Your task to perform on an android device: create a new album in the google photos Image 0: 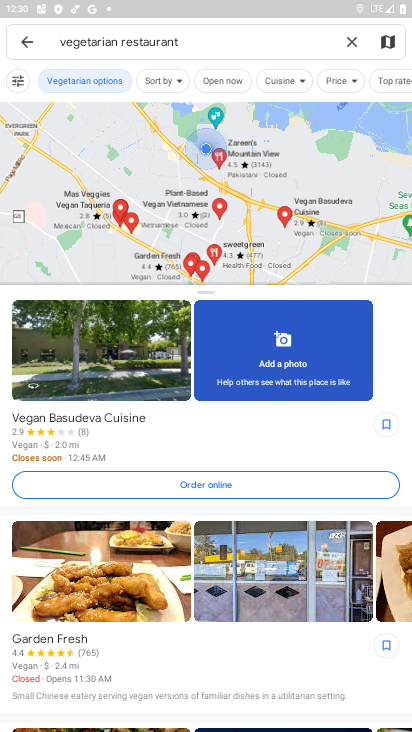
Step 0: press home button
Your task to perform on an android device: create a new album in the google photos Image 1: 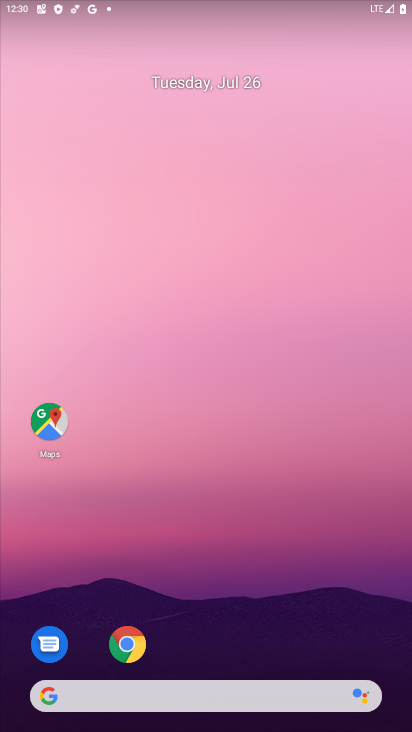
Step 1: drag from (213, 672) to (279, 23)
Your task to perform on an android device: create a new album in the google photos Image 2: 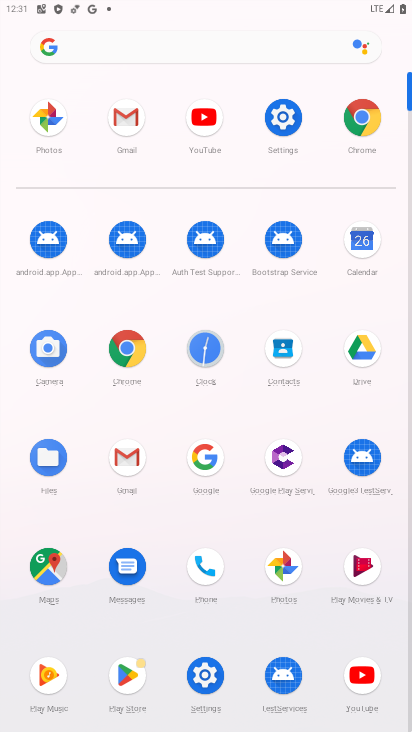
Step 2: click (290, 571)
Your task to perform on an android device: create a new album in the google photos Image 3: 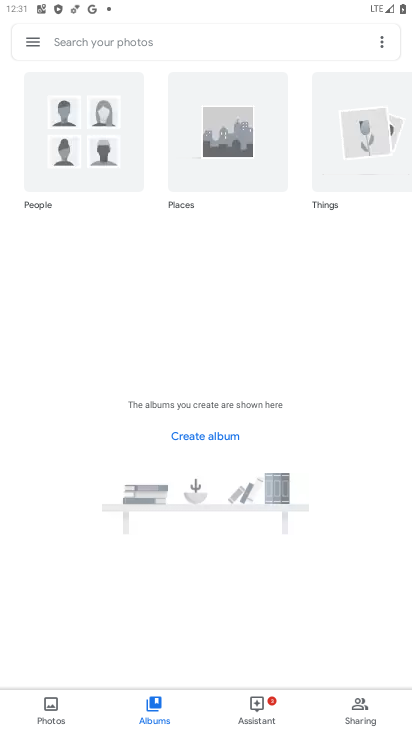
Step 3: click (178, 513)
Your task to perform on an android device: create a new album in the google photos Image 4: 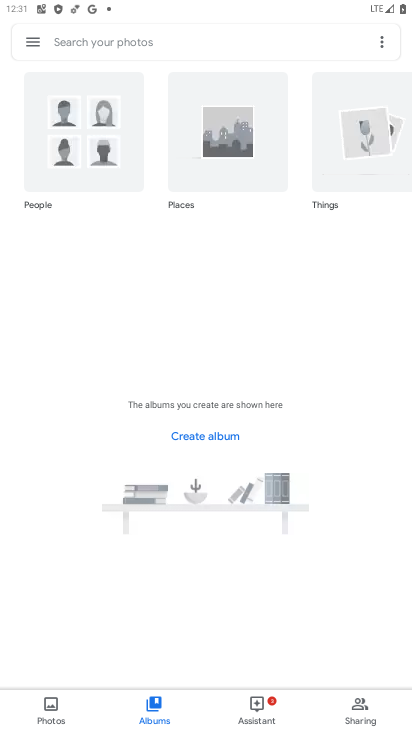
Step 4: click (200, 483)
Your task to perform on an android device: create a new album in the google photos Image 5: 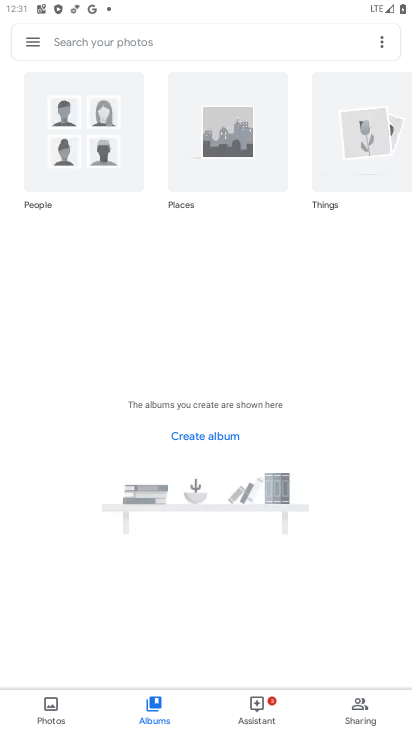
Step 5: click (206, 435)
Your task to perform on an android device: create a new album in the google photos Image 6: 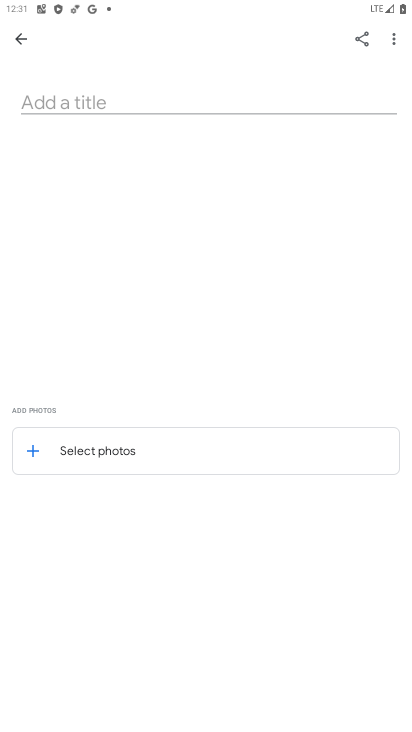
Step 6: task complete